Your task to perform on an android device: choose inbox layout in the gmail app Image 0: 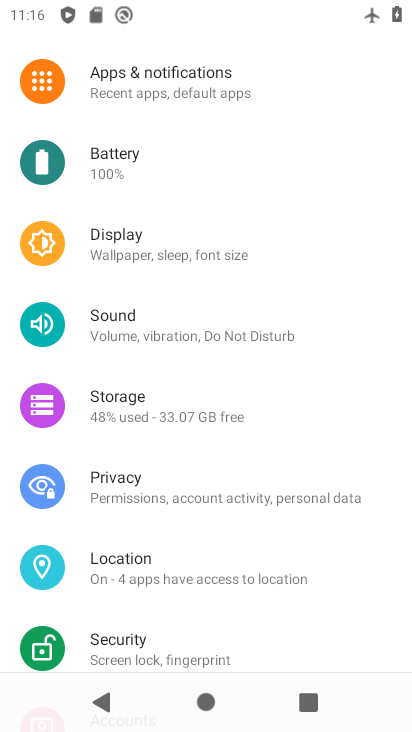
Step 0: press back button
Your task to perform on an android device: choose inbox layout in the gmail app Image 1: 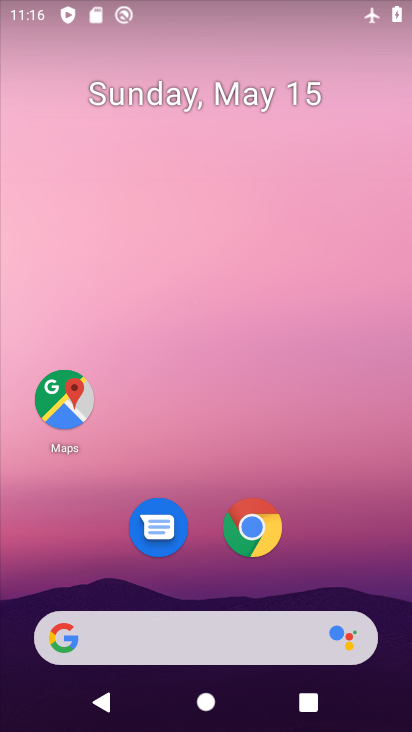
Step 1: drag from (350, 574) to (290, 22)
Your task to perform on an android device: choose inbox layout in the gmail app Image 2: 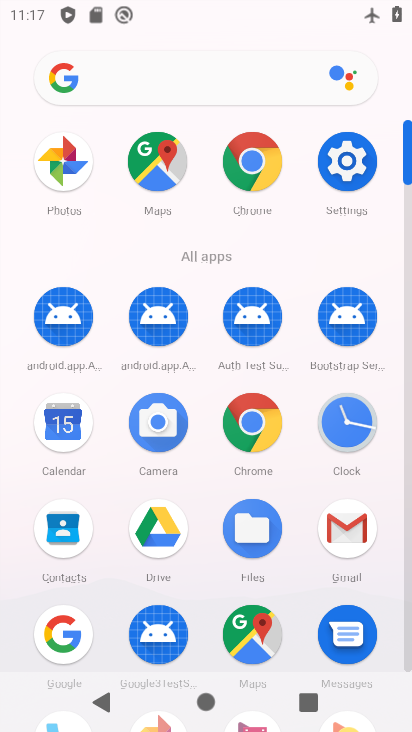
Step 2: drag from (6, 571) to (18, 255)
Your task to perform on an android device: choose inbox layout in the gmail app Image 3: 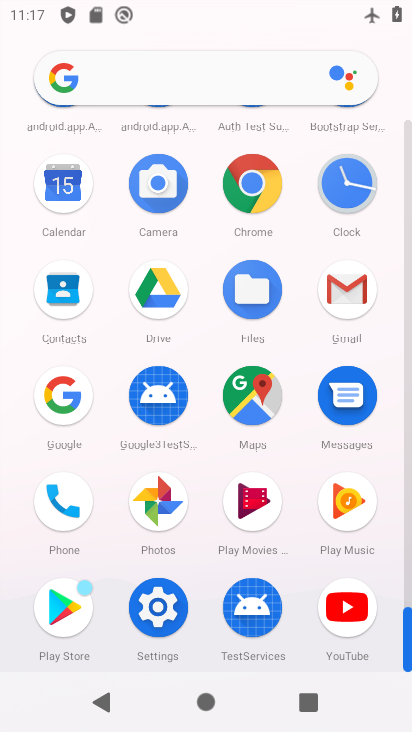
Step 3: click (347, 282)
Your task to perform on an android device: choose inbox layout in the gmail app Image 4: 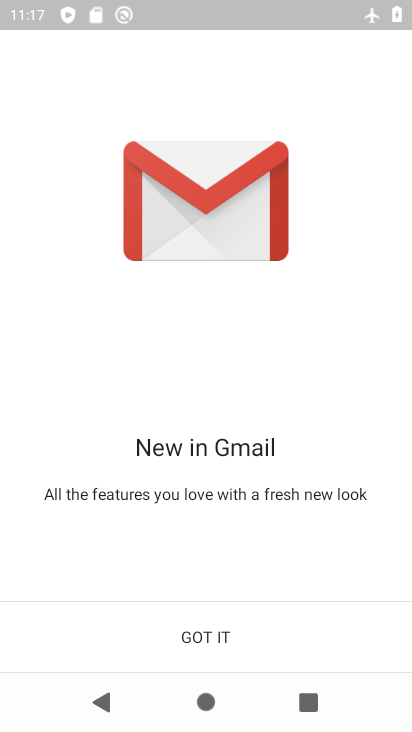
Step 4: click (270, 620)
Your task to perform on an android device: choose inbox layout in the gmail app Image 5: 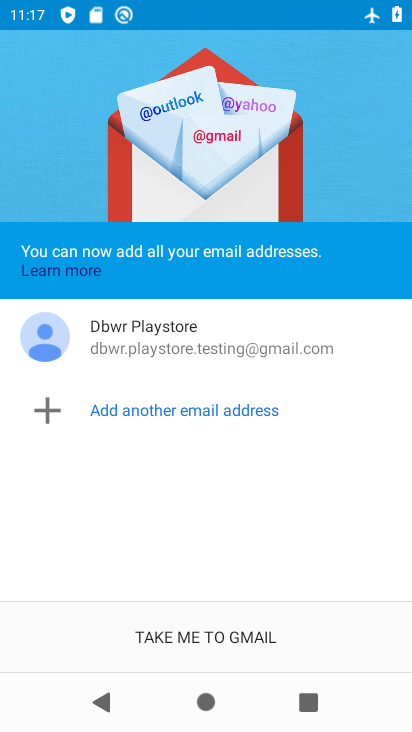
Step 5: click (250, 627)
Your task to perform on an android device: choose inbox layout in the gmail app Image 6: 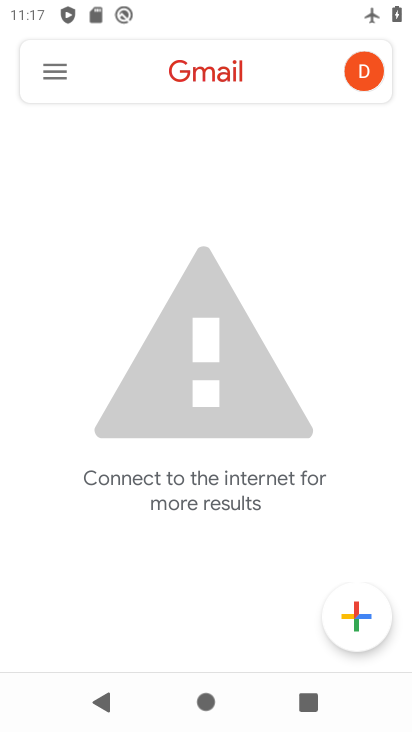
Step 6: click (51, 70)
Your task to perform on an android device: choose inbox layout in the gmail app Image 7: 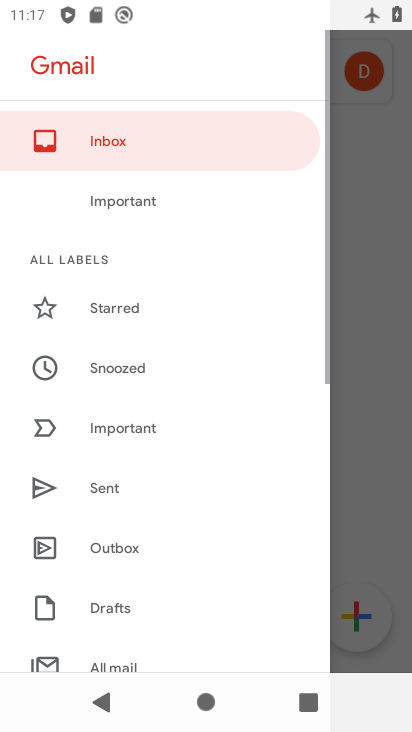
Step 7: drag from (155, 627) to (204, 126)
Your task to perform on an android device: choose inbox layout in the gmail app Image 8: 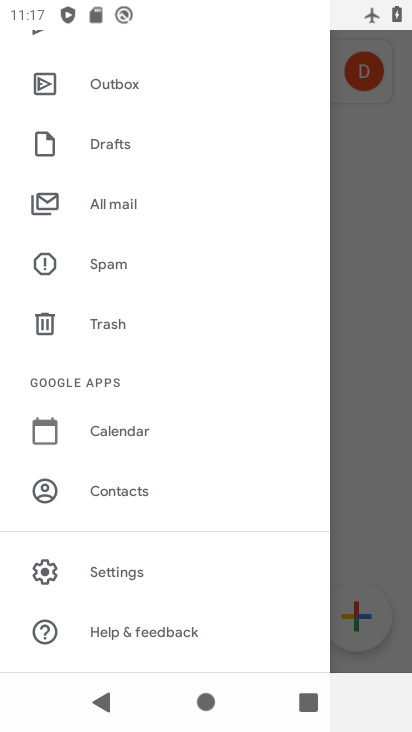
Step 8: click (155, 572)
Your task to perform on an android device: choose inbox layout in the gmail app Image 9: 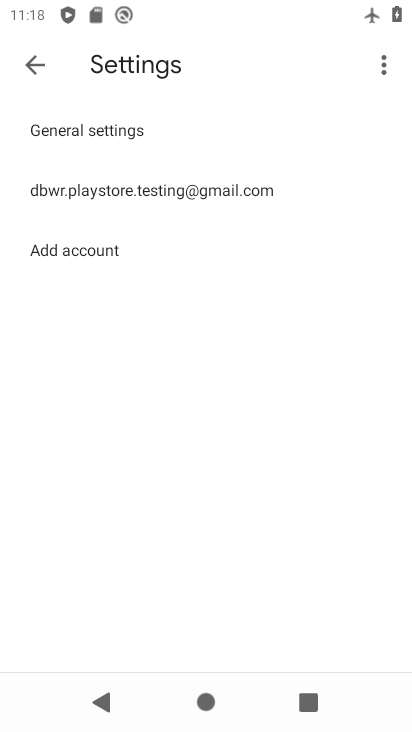
Step 9: click (126, 190)
Your task to perform on an android device: choose inbox layout in the gmail app Image 10: 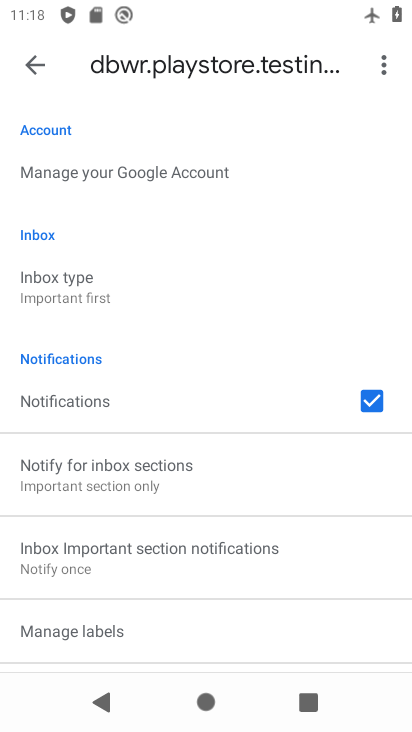
Step 10: drag from (254, 577) to (240, 151)
Your task to perform on an android device: choose inbox layout in the gmail app Image 11: 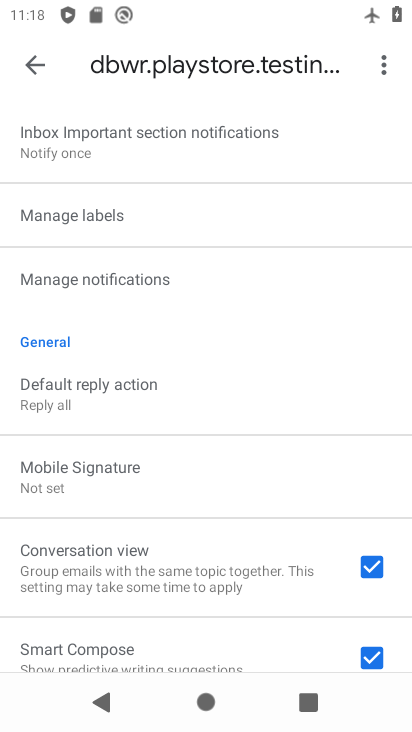
Step 11: drag from (236, 534) to (236, 176)
Your task to perform on an android device: choose inbox layout in the gmail app Image 12: 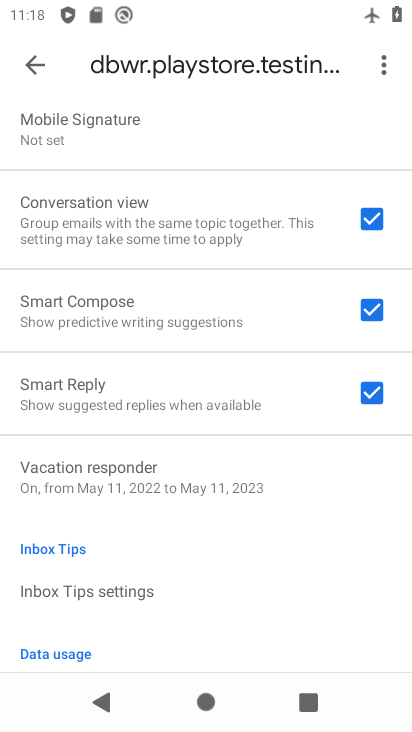
Step 12: drag from (223, 146) to (256, 569)
Your task to perform on an android device: choose inbox layout in the gmail app Image 13: 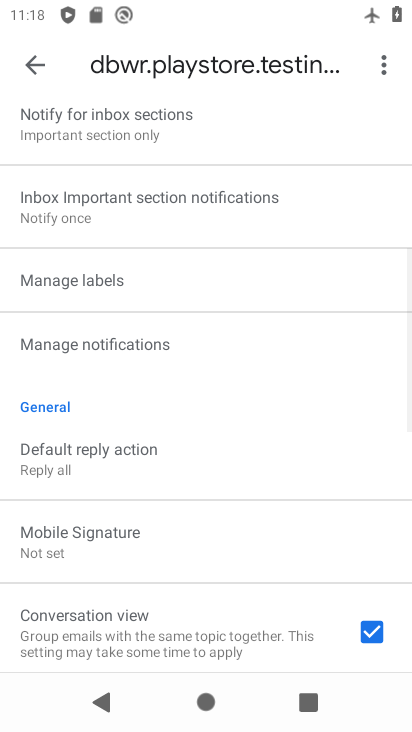
Step 13: drag from (215, 264) to (220, 601)
Your task to perform on an android device: choose inbox layout in the gmail app Image 14: 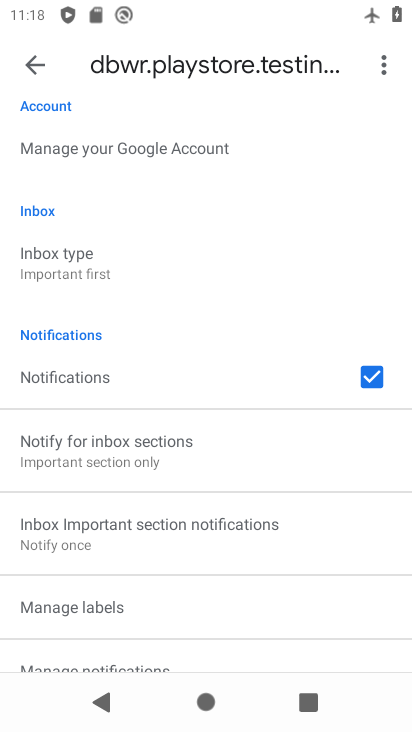
Step 14: drag from (178, 194) to (185, 524)
Your task to perform on an android device: choose inbox layout in the gmail app Image 15: 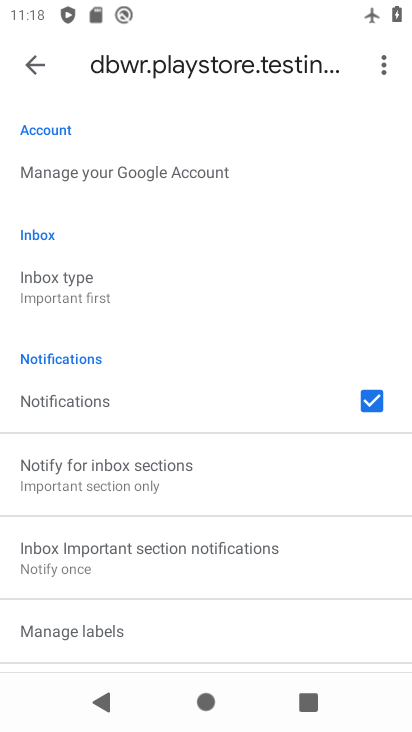
Step 15: click (135, 282)
Your task to perform on an android device: choose inbox layout in the gmail app Image 16: 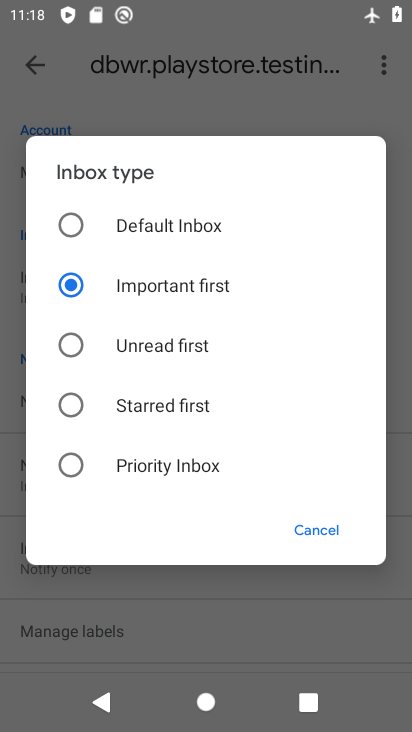
Step 16: click (138, 332)
Your task to perform on an android device: choose inbox layout in the gmail app Image 17: 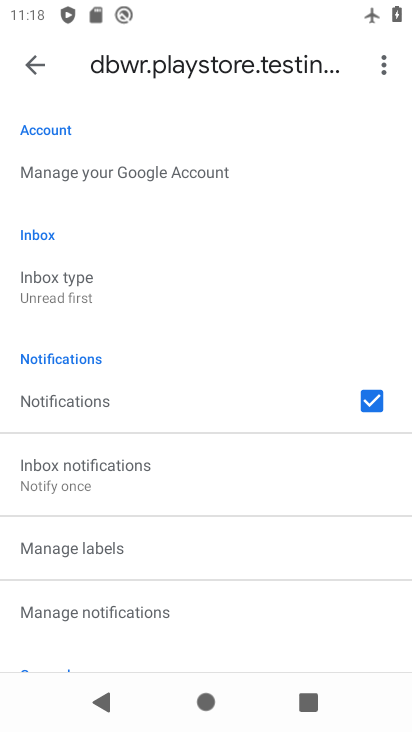
Step 17: task complete